Your task to perform on an android device: turn off notifications in google photos Image 0: 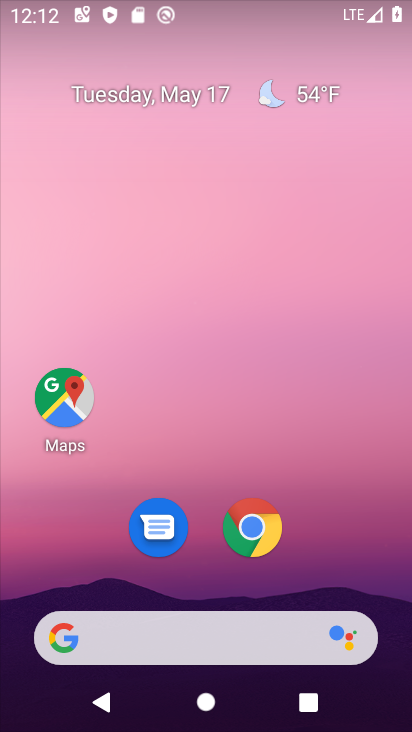
Step 0: drag from (209, 665) to (234, 171)
Your task to perform on an android device: turn off notifications in google photos Image 1: 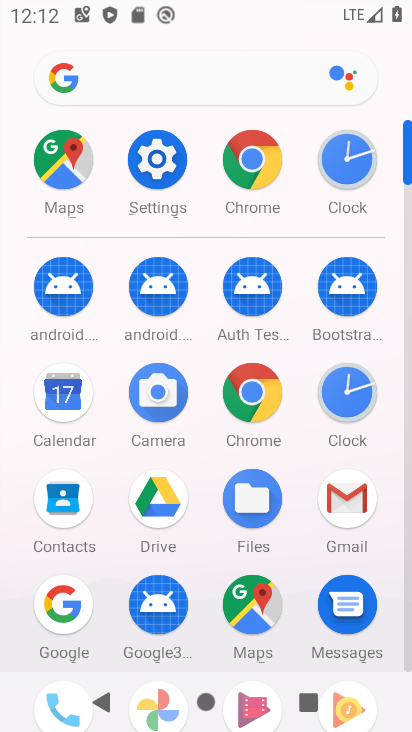
Step 1: drag from (202, 543) to (219, 386)
Your task to perform on an android device: turn off notifications in google photos Image 2: 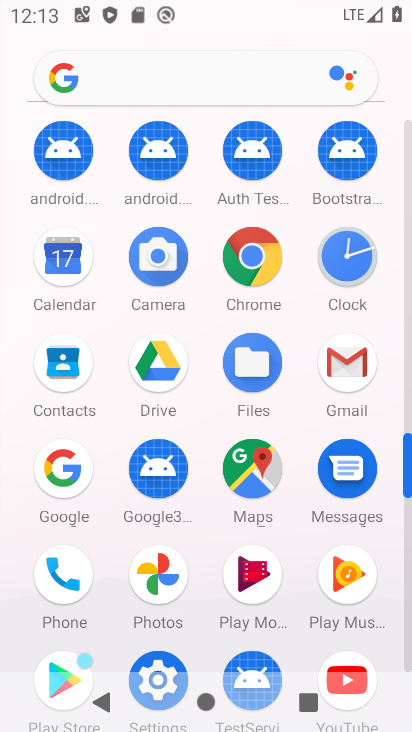
Step 2: click (153, 578)
Your task to perform on an android device: turn off notifications in google photos Image 3: 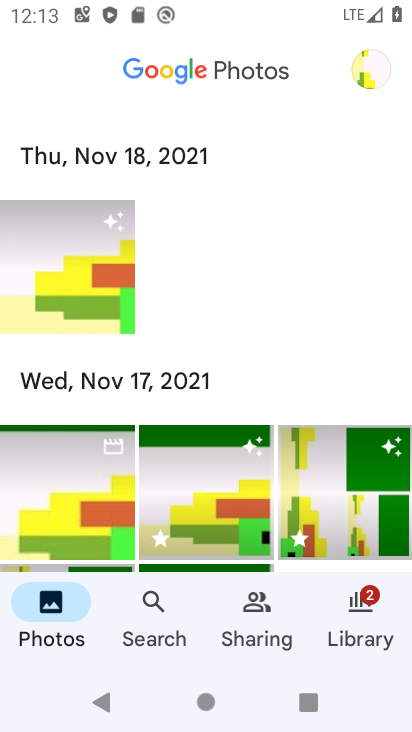
Step 3: click (363, 80)
Your task to perform on an android device: turn off notifications in google photos Image 4: 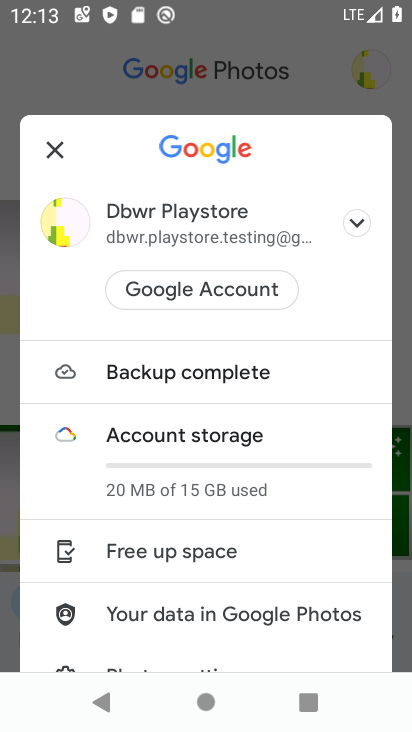
Step 4: drag from (185, 550) to (210, 377)
Your task to perform on an android device: turn off notifications in google photos Image 5: 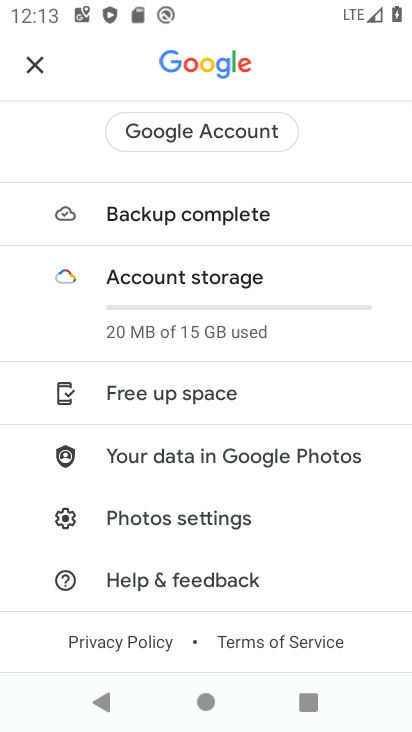
Step 5: click (171, 520)
Your task to perform on an android device: turn off notifications in google photos Image 6: 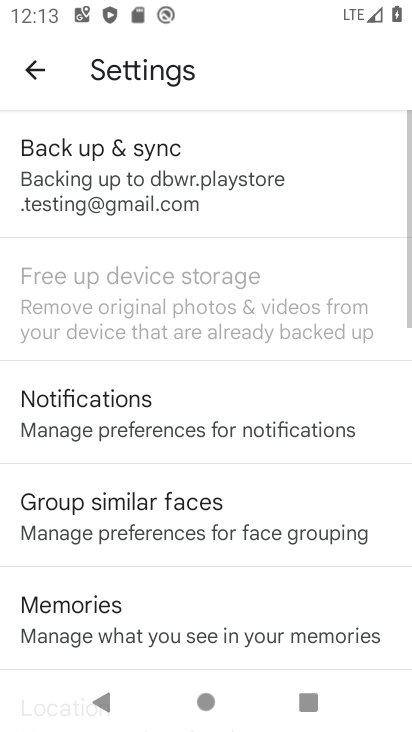
Step 6: click (201, 411)
Your task to perform on an android device: turn off notifications in google photos Image 7: 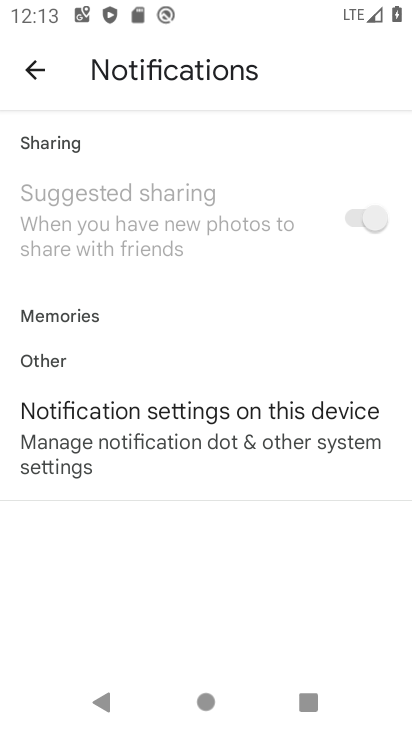
Step 7: click (214, 401)
Your task to perform on an android device: turn off notifications in google photos Image 8: 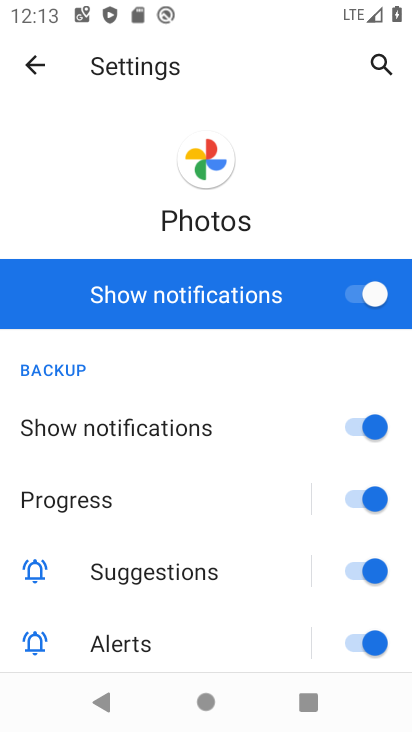
Step 8: click (356, 286)
Your task to perform on an android device: turn off notifications in google photos Image 9: 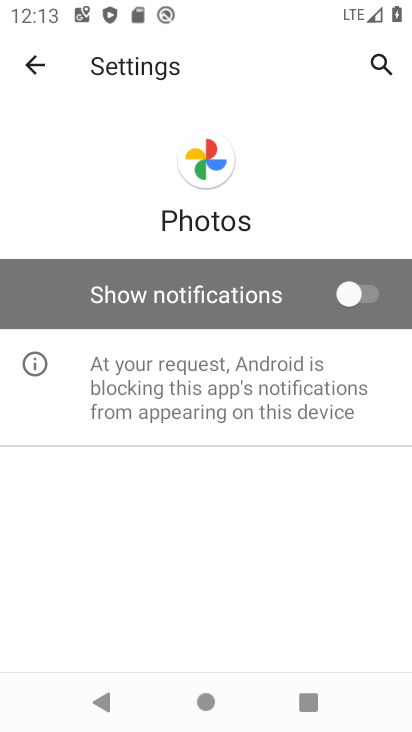
Step 9: task complete